Your task to perform on an android device: turn on wifi Image 0: 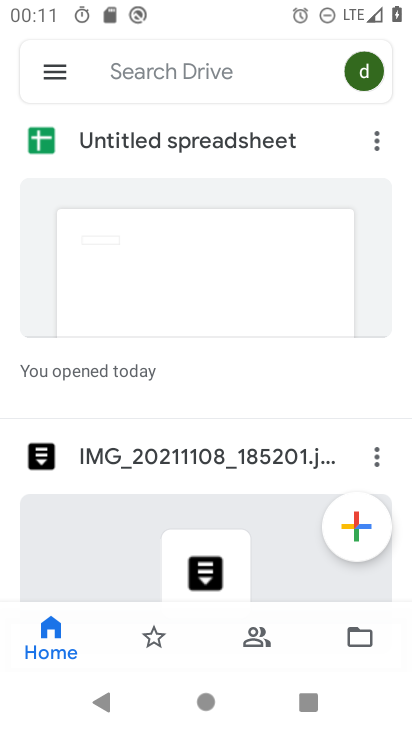
Step 0: press home button
Your task to perform on an android device: turn on wifi Image 1: 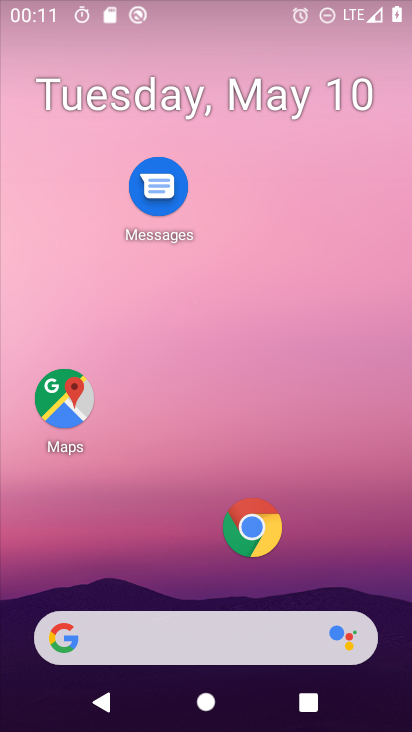
Step 1: drag from (187, 560) to (262, 29)
Your task to perform on an android device: turn on wifi Image 2: 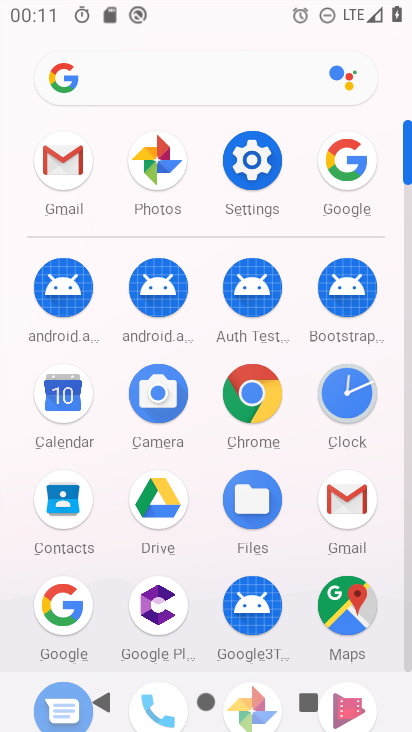
Step 2: click (253, 168)
Your task to perform on an android device: turn on wifi Image 3: 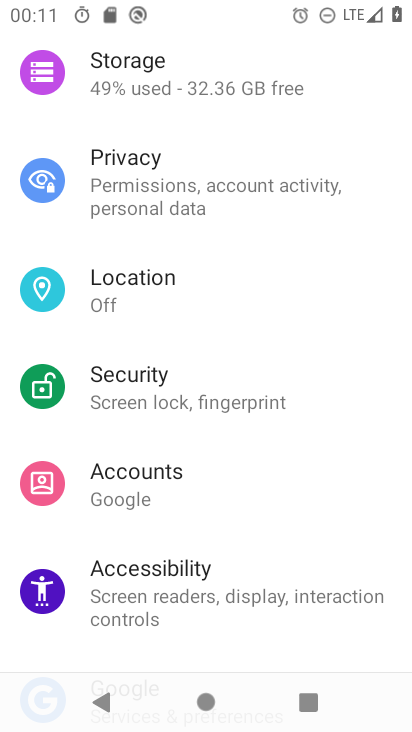
Step 3: drag from (157, 146) to (290, 717)
Your task to perform on an android device: turn on wifi Image 4: 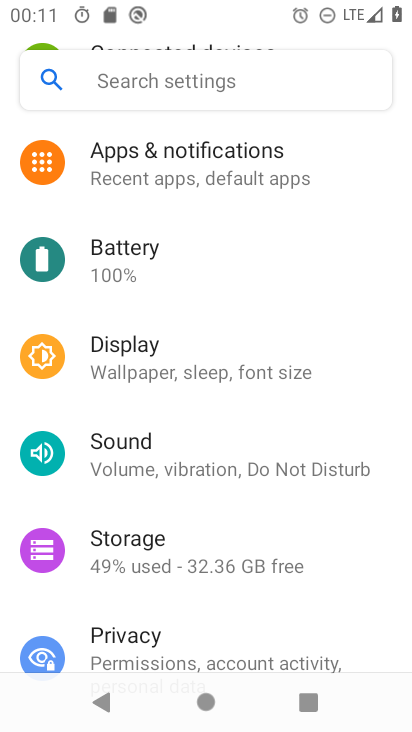
Step 4: drag from (125, 192) to (340, 716)
Your task to perform on an android device: turn on wifi Image 5: 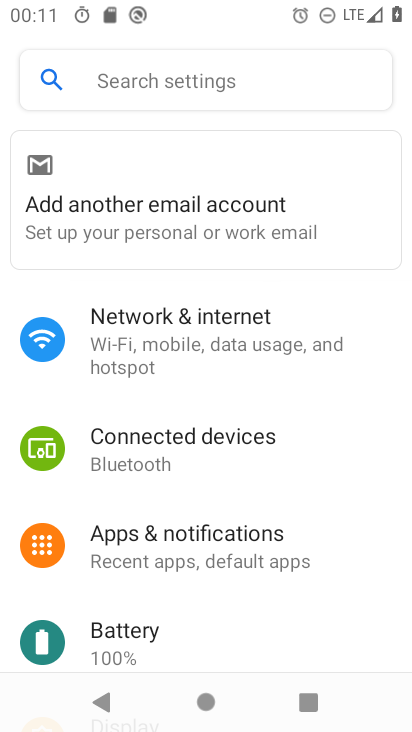
Step 5: click (212, 323)
Your task to perform on an android device: turn on wifi Image 6: 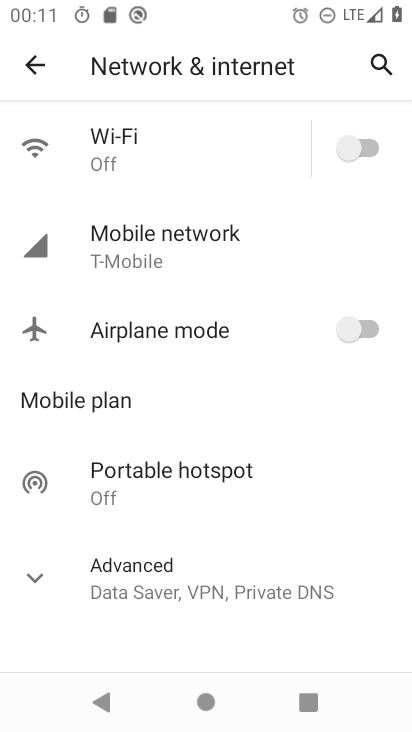
Step 6: click (346, 139)
Your task to perform on an android device: turn on wifi Image 7: 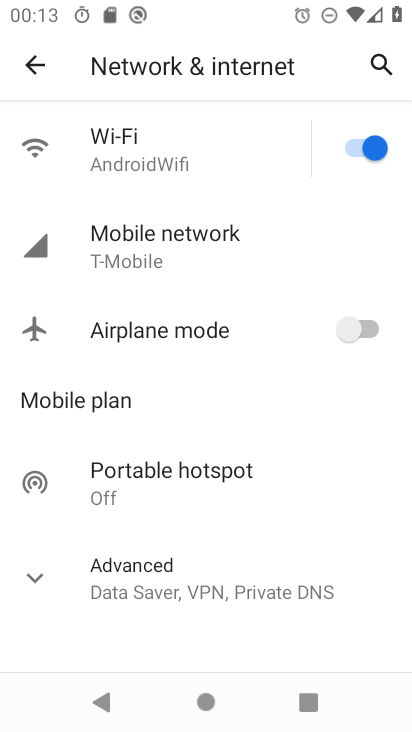
Step 7: task complete